Your task to perform on an android device: Open Maps and search for coffee Image 0: 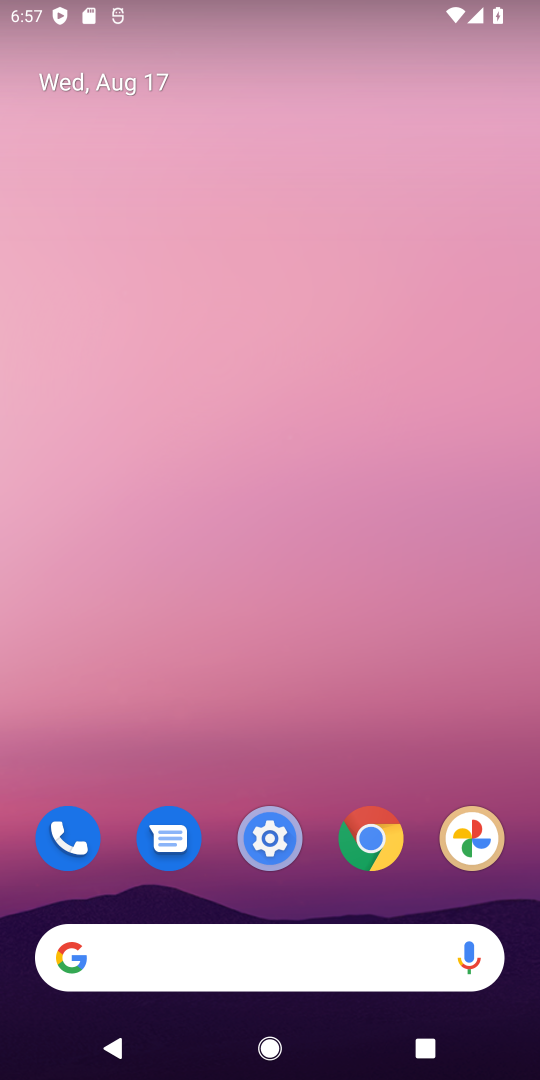
Step 0: drag from (391, 1006) to (285, 407)
Your task to perform on an android device: Open Maps and search for coffee Image 1: 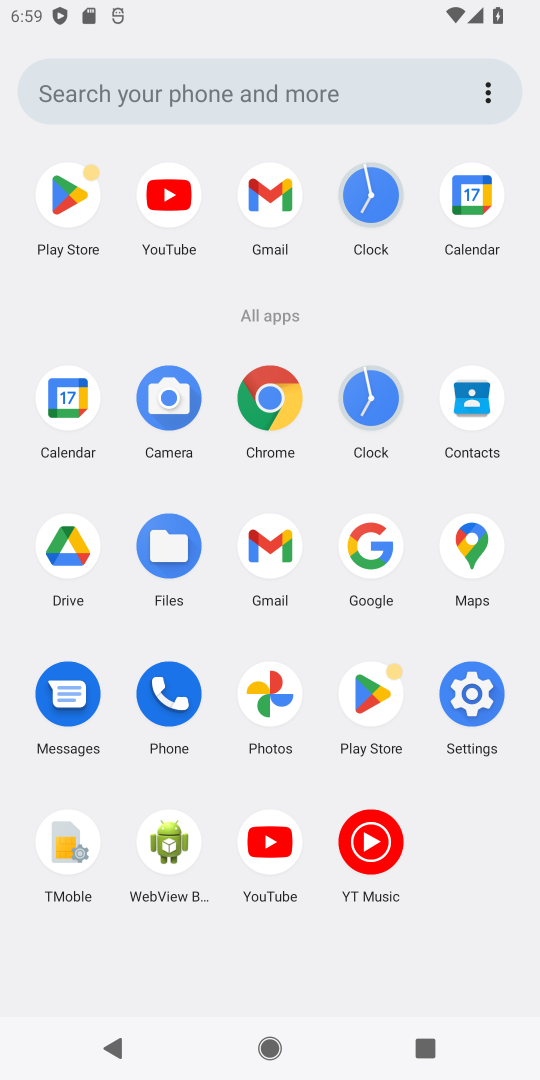
Step 1: click (490, 571)
Your task to perform on an android device: Open Maps and search for coffee Image 2: 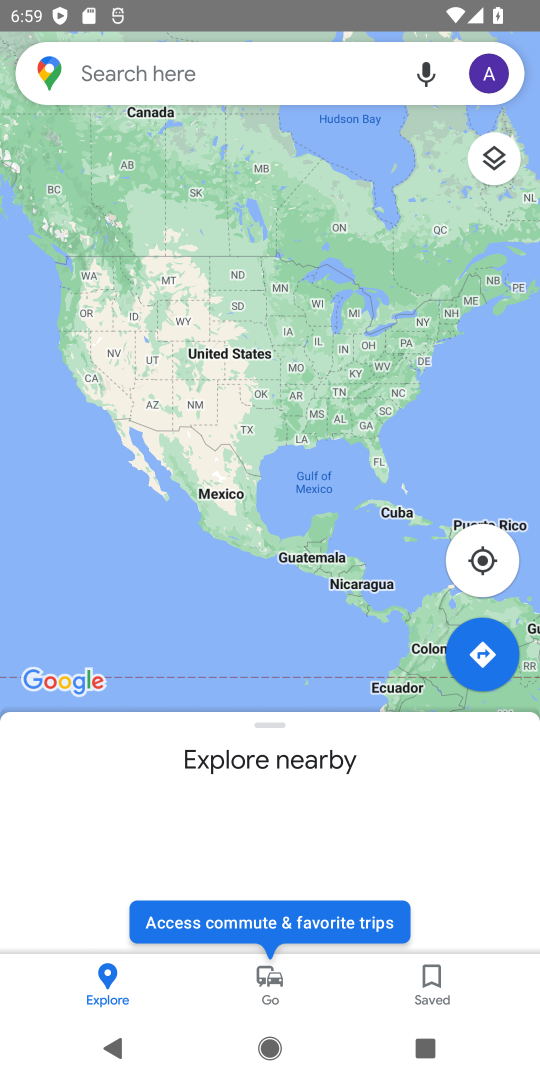
Step 2: click (200, 78)
Your task to perform on an android device: Open Maps and search for coffee Image 3: 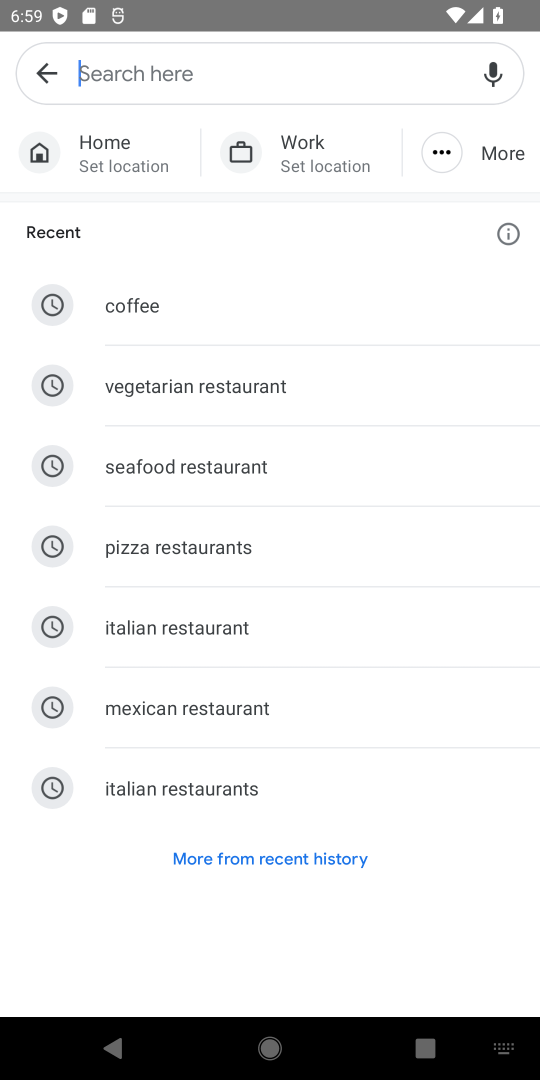
Step 3: click (203, 302)
Your task to perform on an android device: Open Maps and search for coffee Image 4: 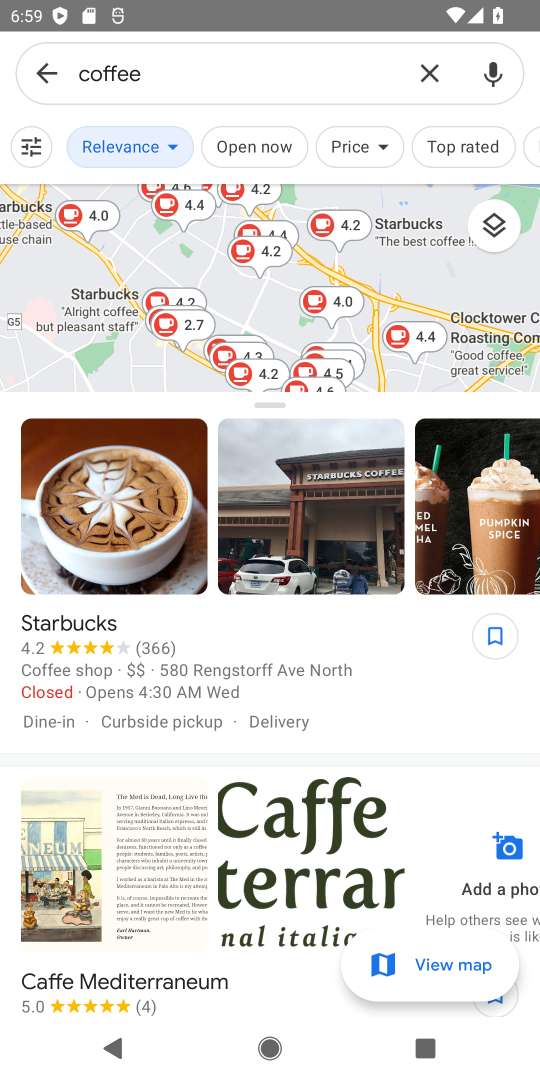
Step 4: task complete